Your task to perform on an android device: open app "Venmo" Image 0: 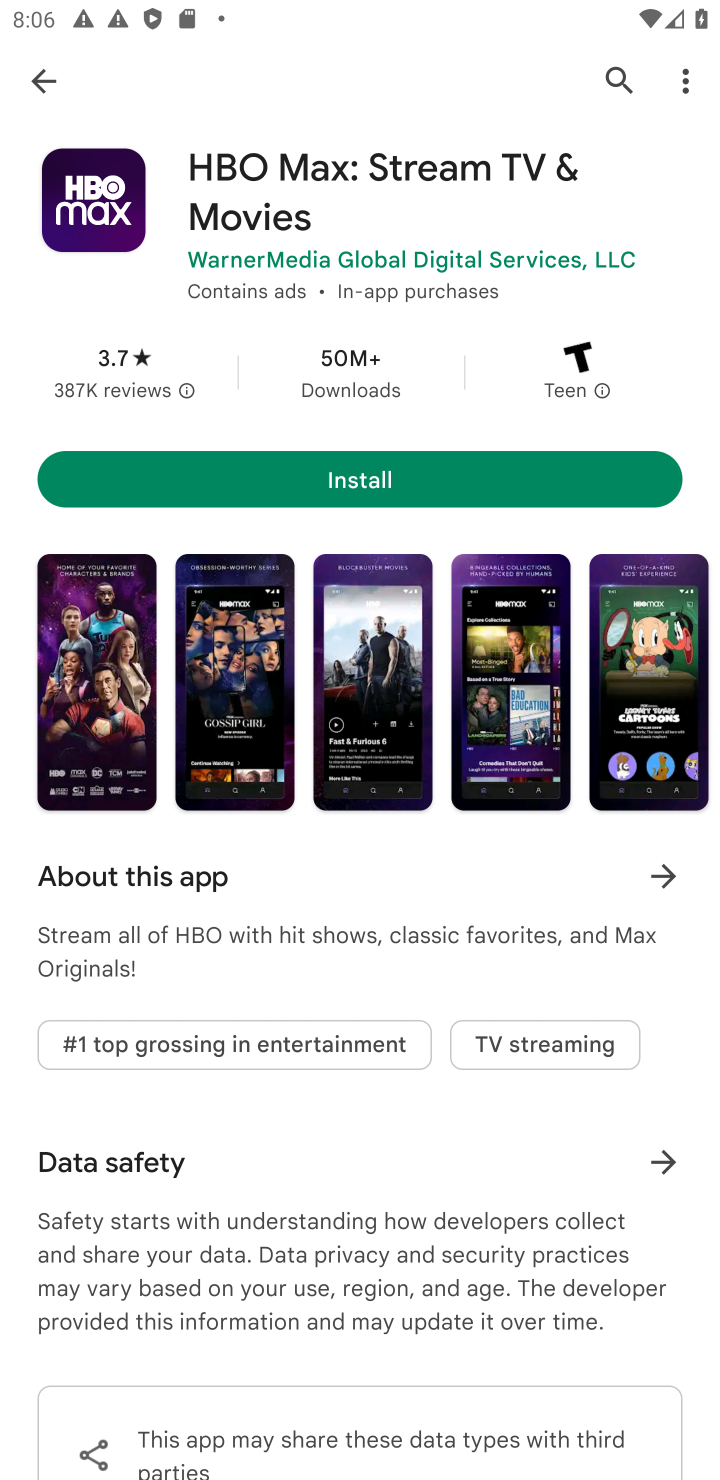
Step 0: click (618, 76)
Your task to perform on an android device: open app "Venmo" Image 1: 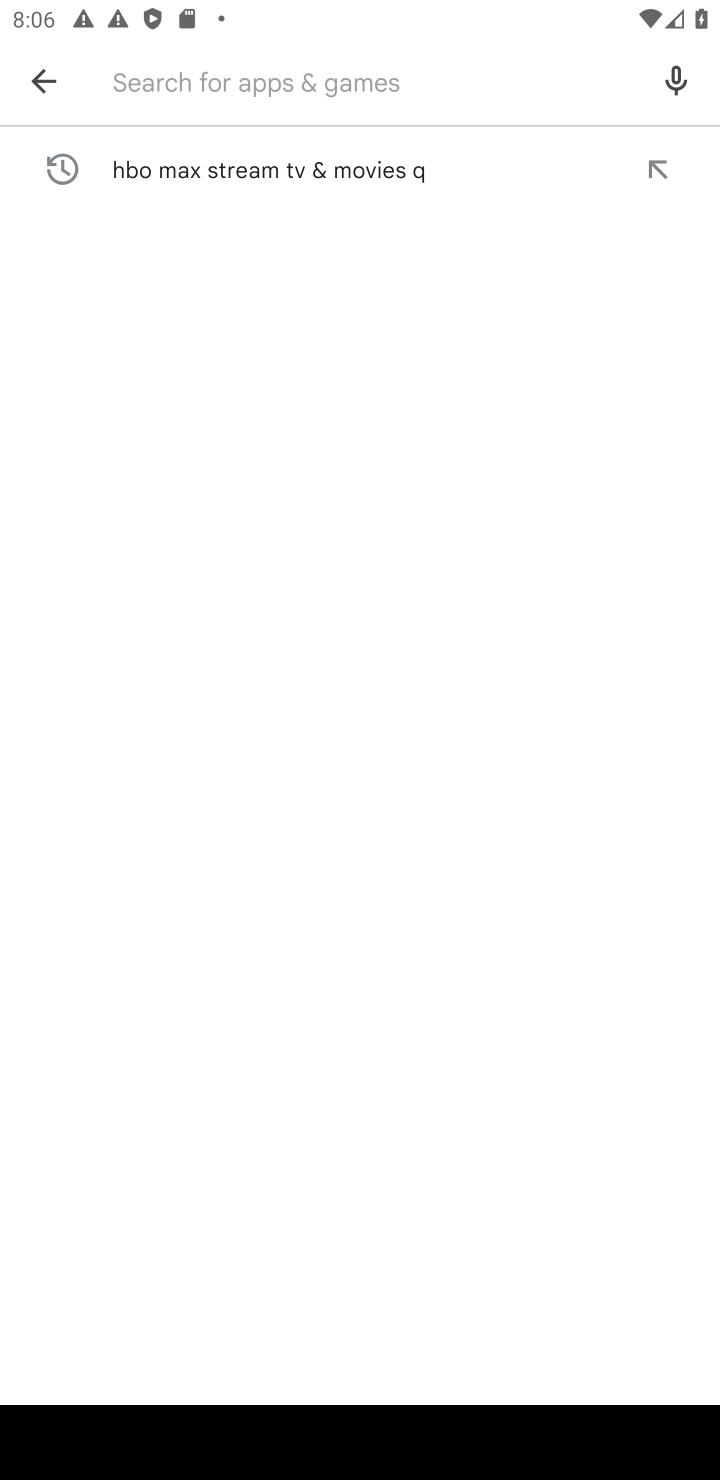
Step 1: type "venmo"
Your task to perform on an android device: open app "Venmo" Image 2: 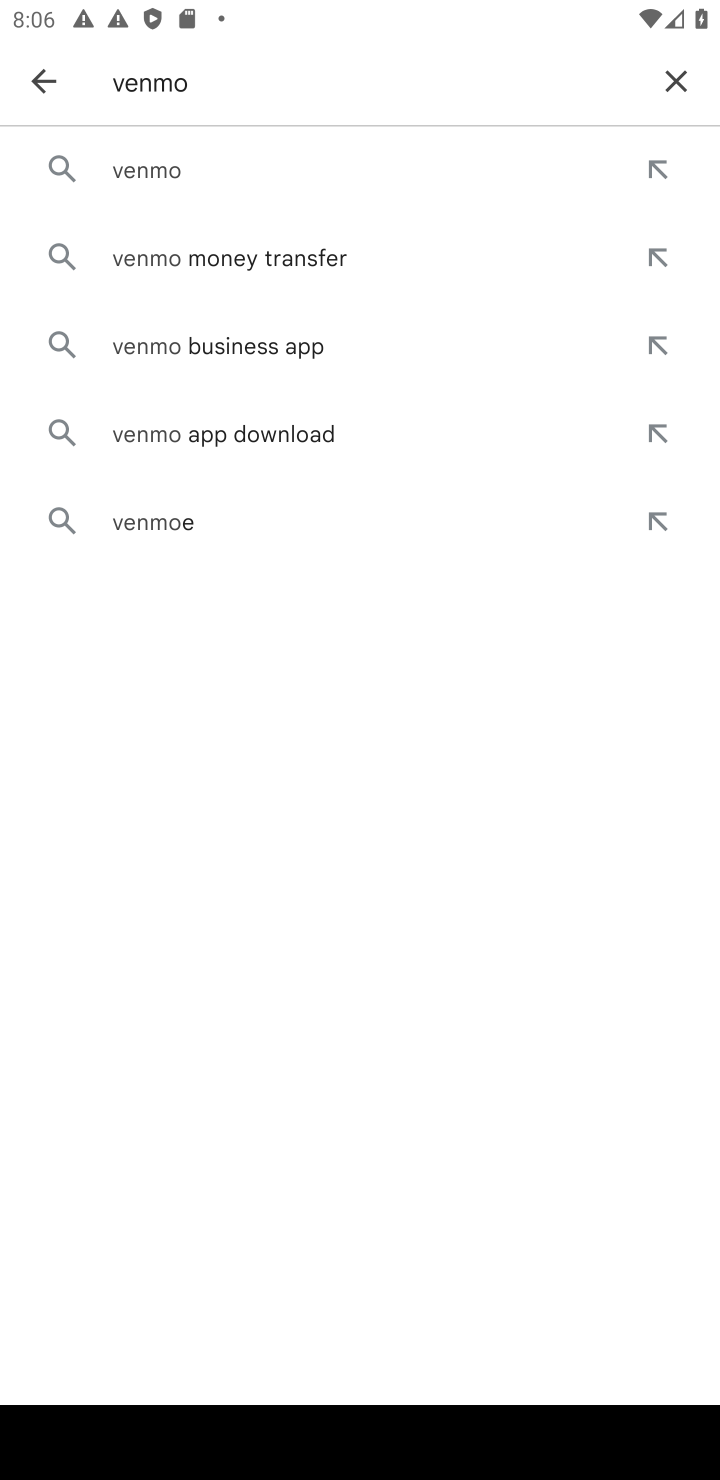
Step 2: click (335, 182)
Your task to perform on an android device: open app "Venmo" Image 3: 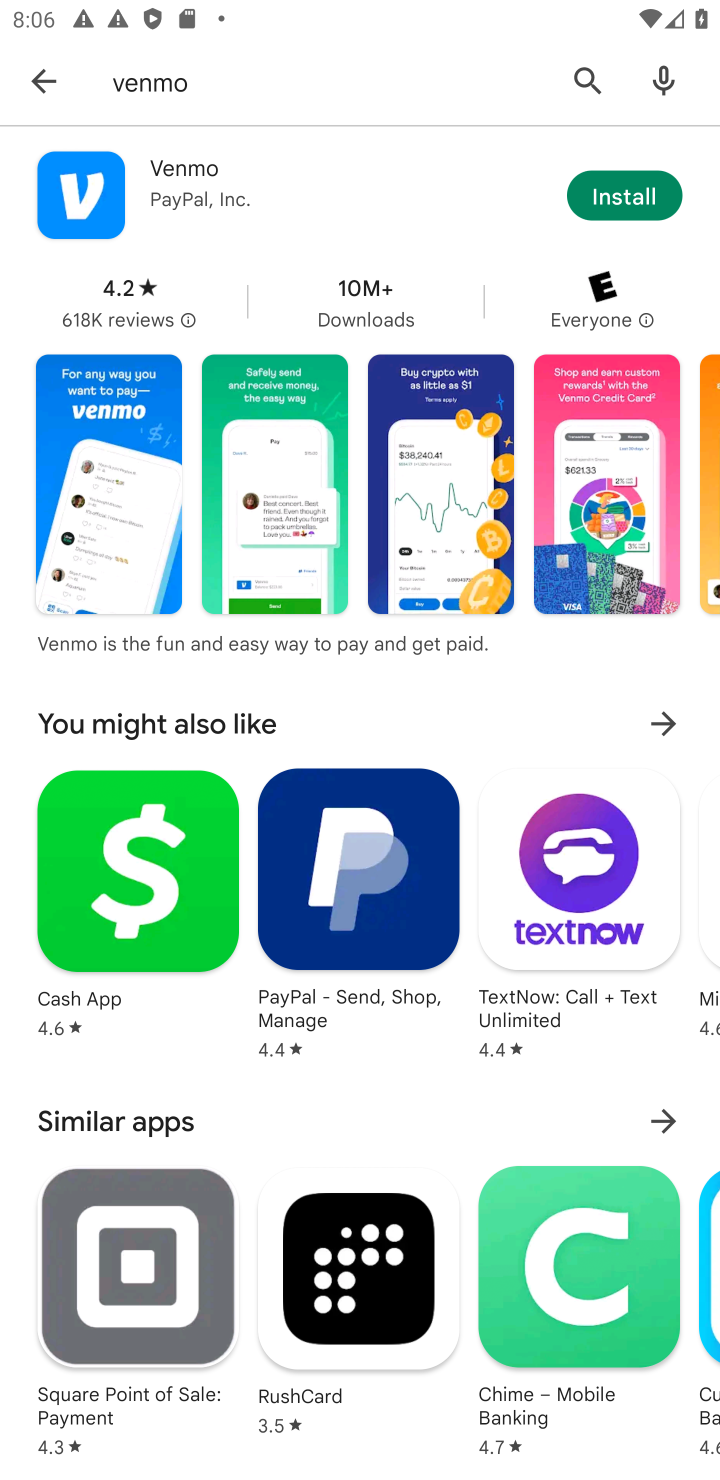
Step 3: click (224, 162)
Your task to perform on an android device: open app "Venmo" Image 4: 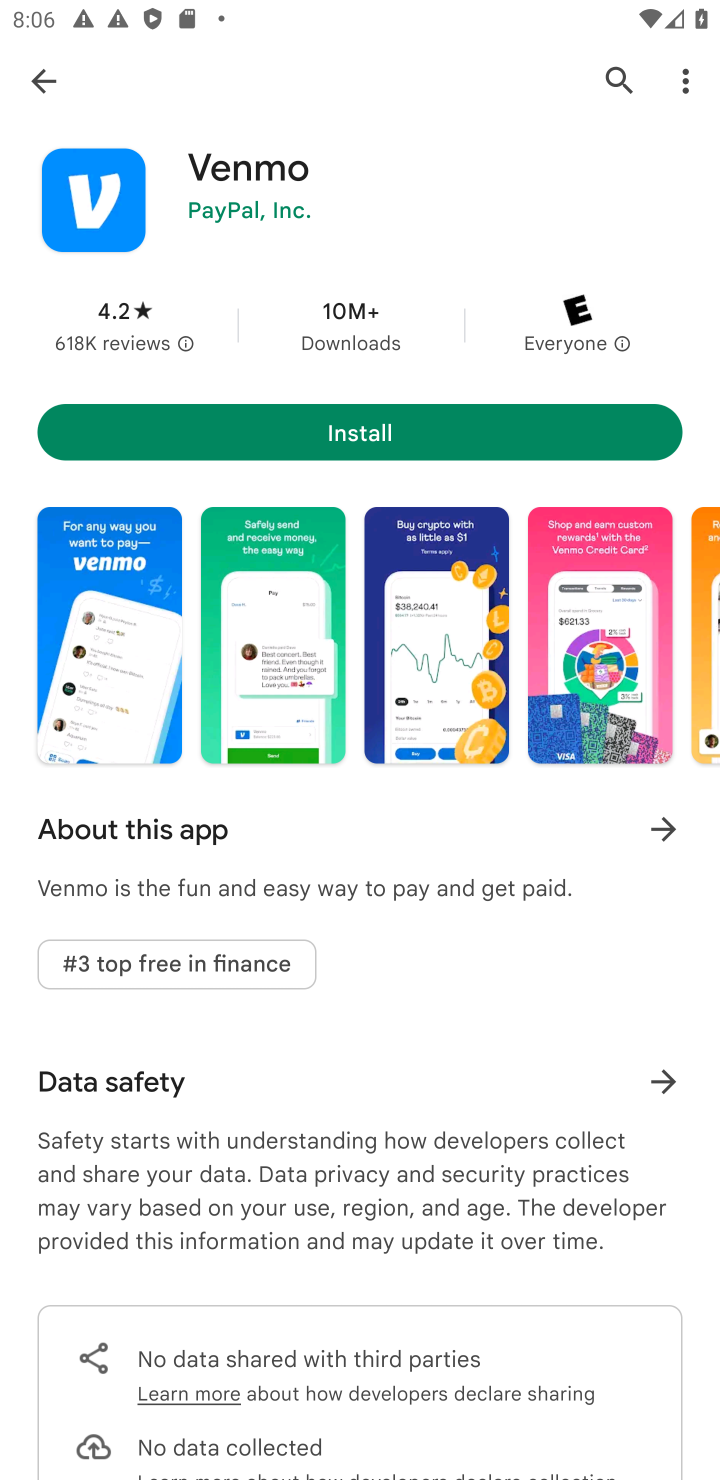
Step 4: task complete